Your task to perform on an android device: Open display settings Image 0: 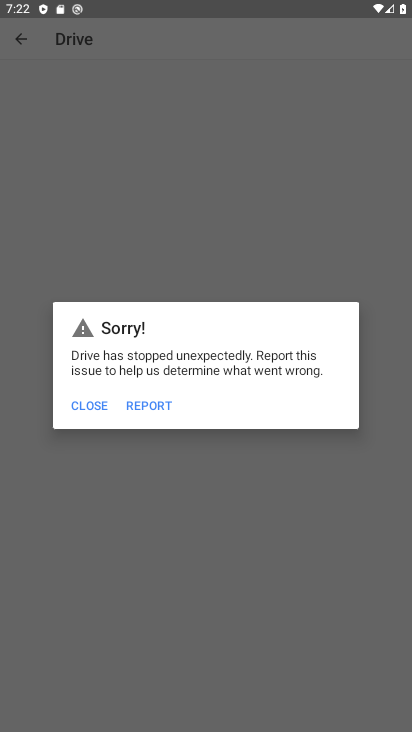
Step 0: press home button
Your task to perform on an android device: Open display settings Image 1: 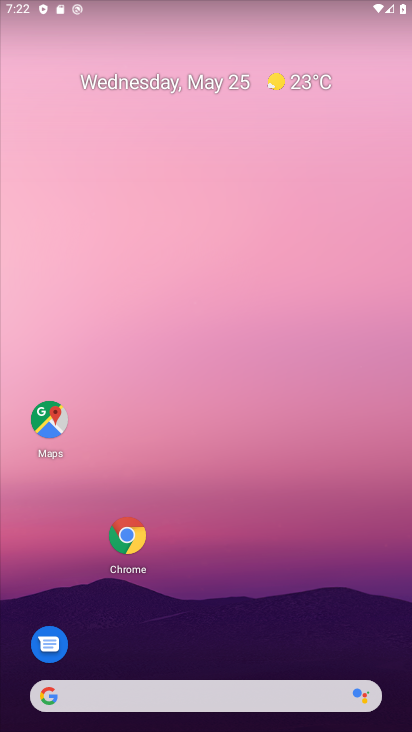
Step 1: drag from (209, 675) to (249, 151)
Your task to perform on an android device: Open display settings Image 2: 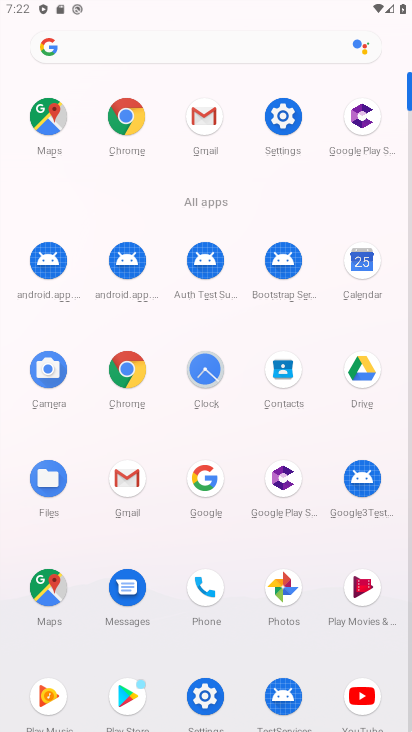
Step 2: click (287, 126)
Your task to perform on an android device: Open display settings Image 3: 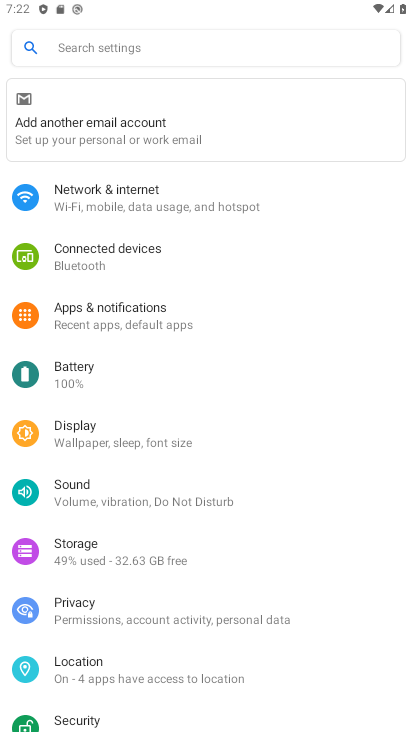
Step 3: click (67, 443)
Your task to perform on an android device: Open display settings Image 4: 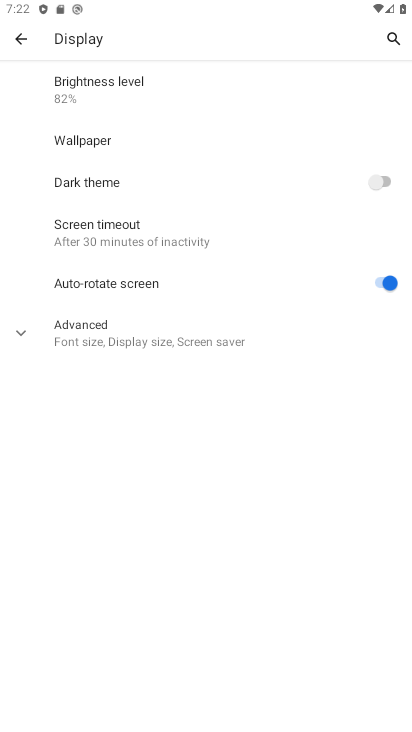
Step 4: click (67, 443)
Your task to perform on an android device: Open display settings Image 5: 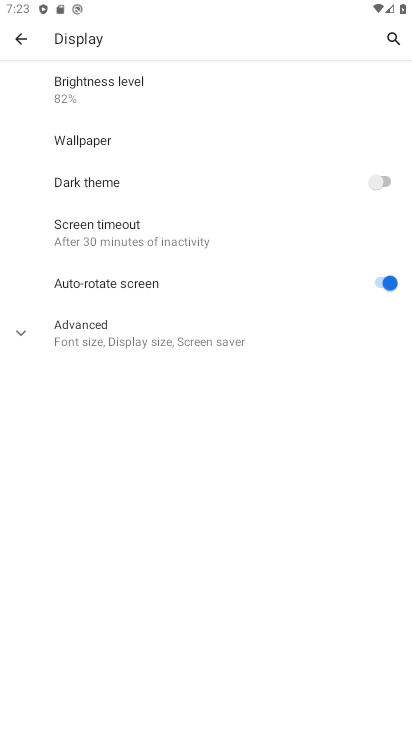
Step 5: task complete